Your task to perform on an android device: delete the emails in spam in the gmail app Image 0: 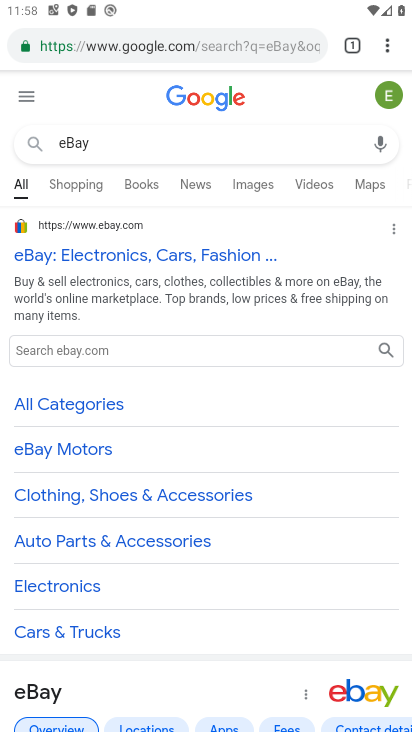
Step 0: press home button
Your task to perform on an android device: delete the emails in spam in the gmail app Image 1: 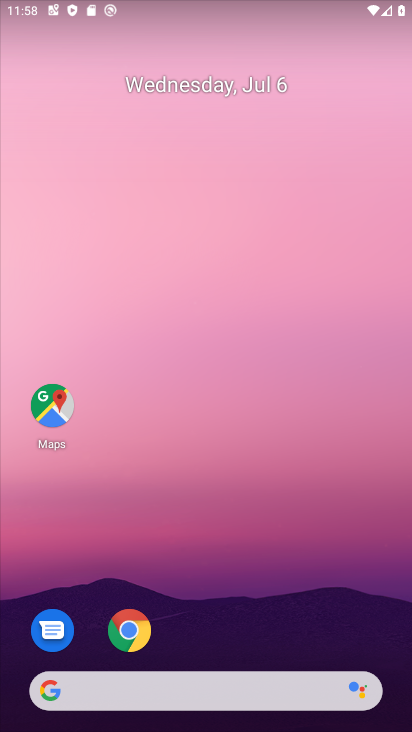
Step 1: drag from (229, 634) to (237, 209)
Your task to perform on an android device: delete the emails in spam in the gmail app Image 2: 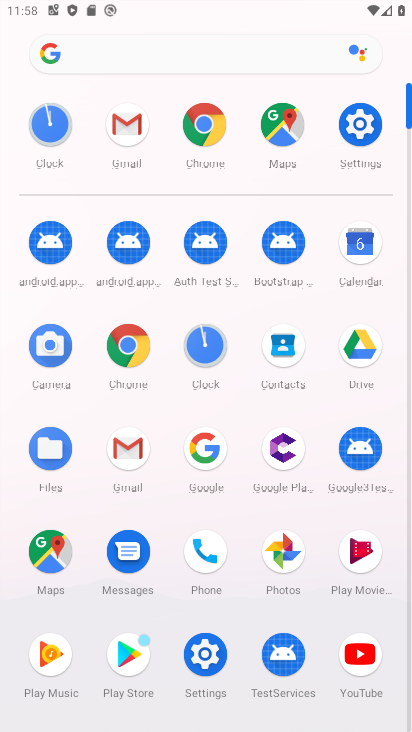
Step 2: click (131, 464)
Your task to perform on an android device: delete the emails in spam in the gmail app Image 3: 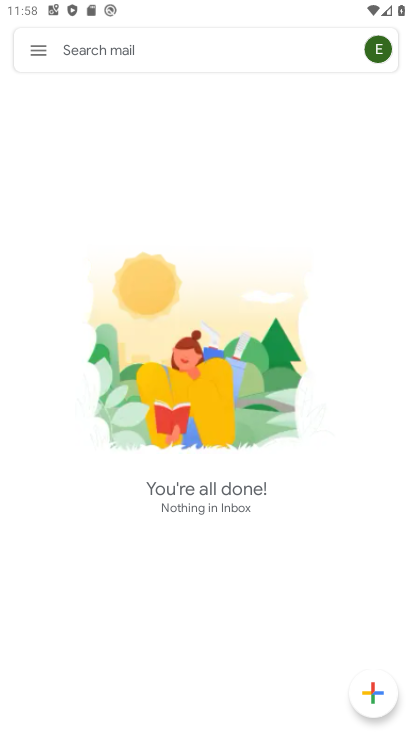
Step 3: click (36, 55)
Your task to perform on an android device: delete the emails in spam in the gmail app Image 4: 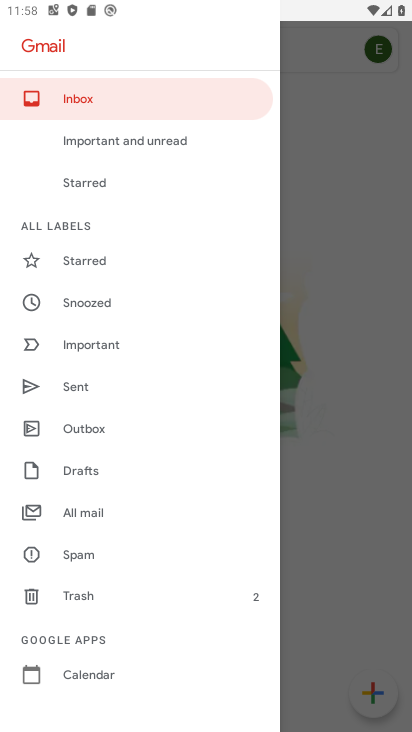
Step 4: click (89, 557)
Your task to perform on an android device: delete the emails in spam in the gmail app Image 5: 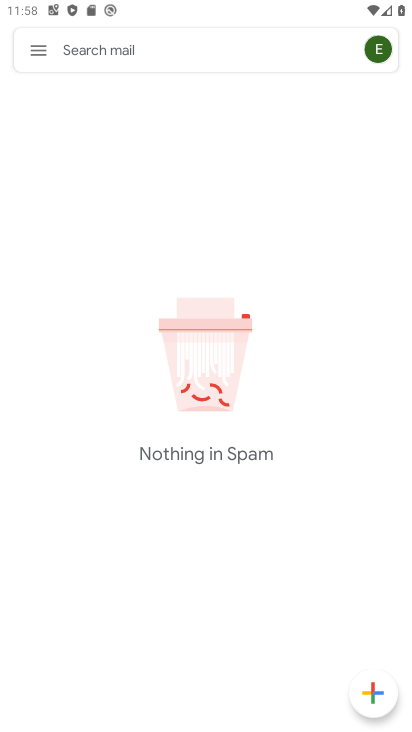
Step 5: task complete